Your task to perform on an android device: Open internet settings Image 0: 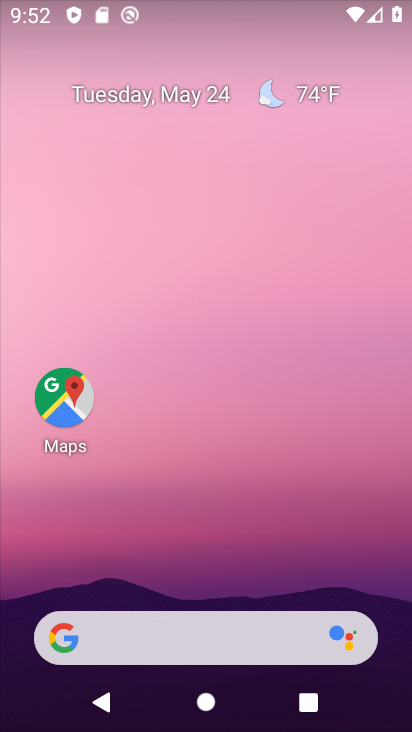
Step 0: drag from (227, 607) to (172, 34)
Your task to perform on an android device: Open internet settings Image 1: 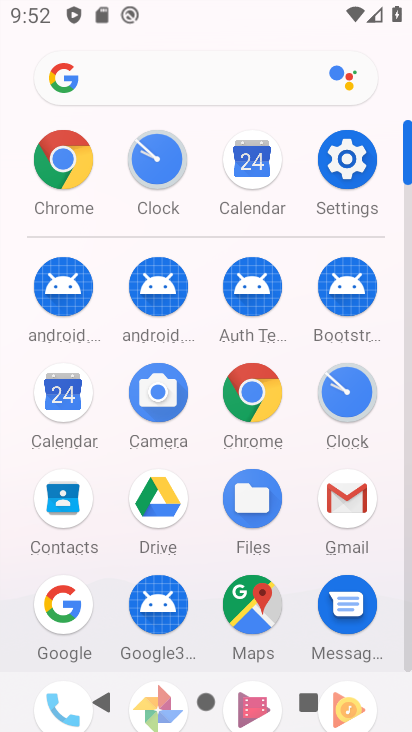
Step 1: click (343, 154)
Your task to perform on an android device: Open internet settings Image 2: 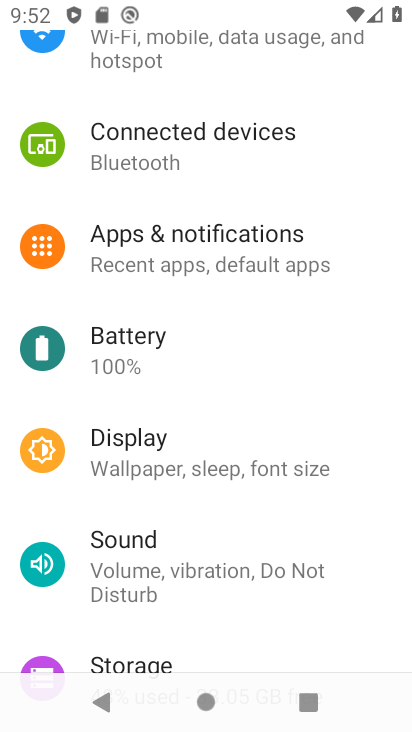
Step 2: click (159, 69)
Your task to perform on an android device: Open internet settings Image 3: 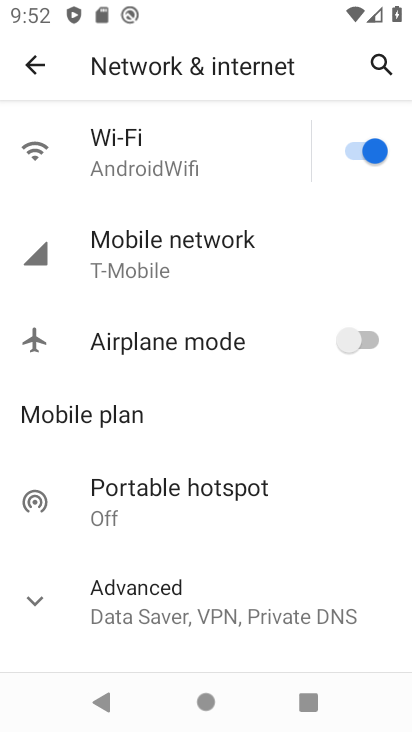
Step 3: click (100, 231)
Your task to perform on an android device: Open internet settings Image 4: 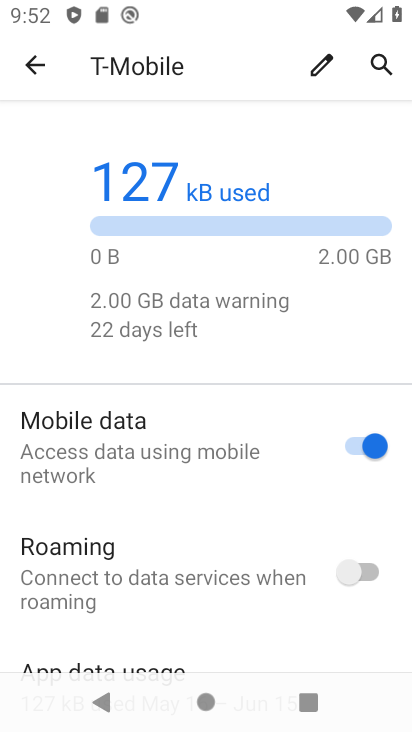
Step 4: task complete